Your task to perform on an android device: remove spam from my inbox in the gmail app Image 0: 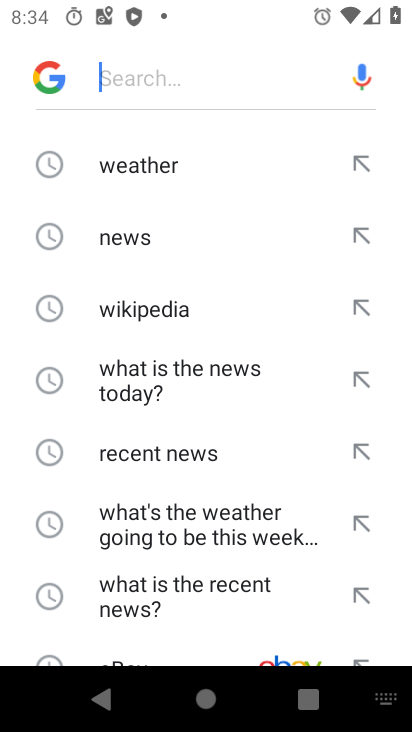
Step 0: press home button
Your task to perform on an android device: remove spam from my inbox in the gmail app Image 1: 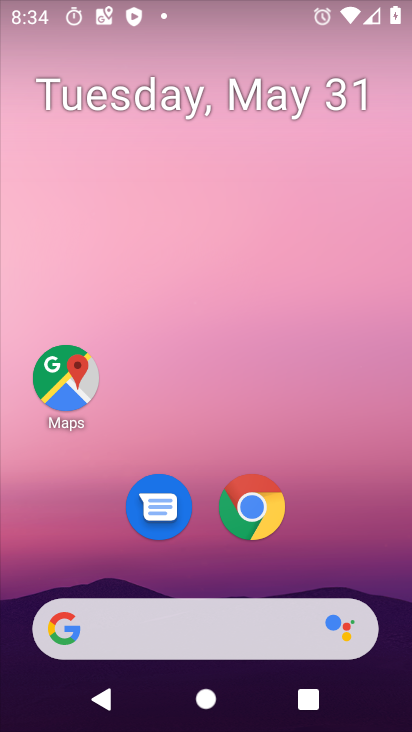
Step 1: drag from (331, 552) to (204, 32)
Your task to perform on an android device: remove spam from my inbox in the gmail app Image 2: 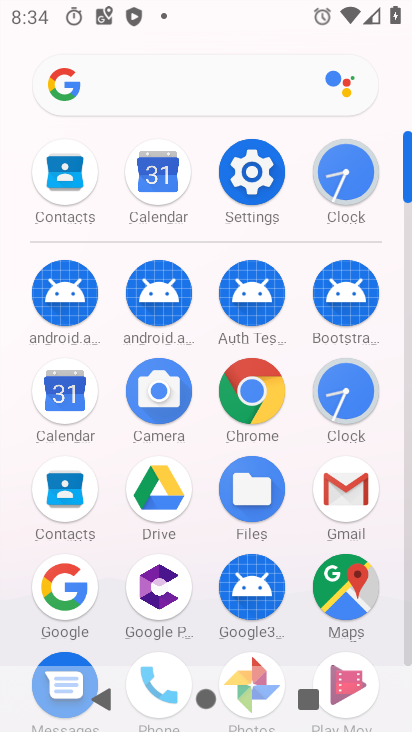
Step 2: click (348, 491)
Your task to perform on an android device: remove spam from my inbox in the gmail app Image 3: 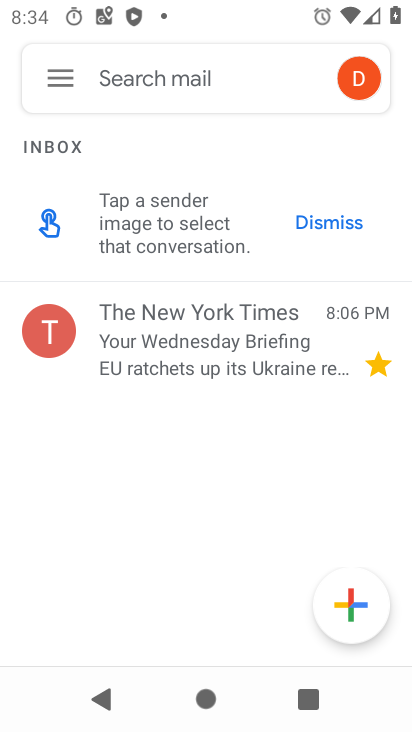
Step 3: click (49, 81)
Your task to perform on an android device: remove spam from my inbox in the gmail app Image 4: 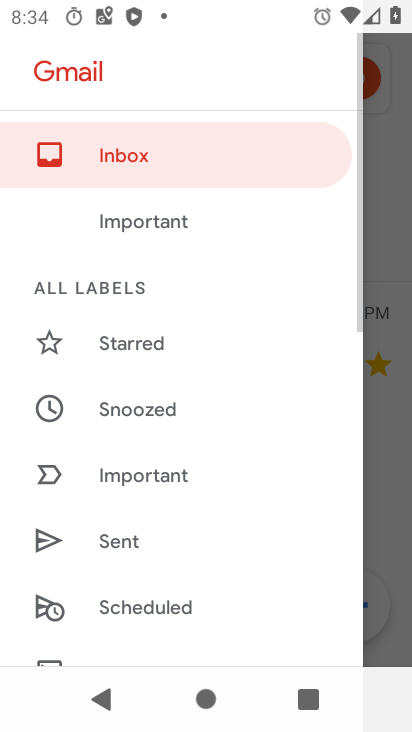
Step 4: drag from (211, 516) to (185, 164)
Your task to perform on an android device: remove spam from my inbox in the gmail app Image 5: 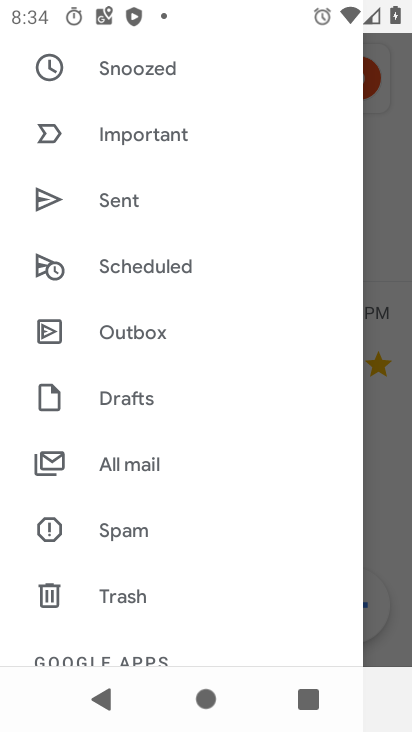
Step 5: click (143, 523)
Your task to perform on an android device: remove spam from my inbox in the gmail app Image 6: 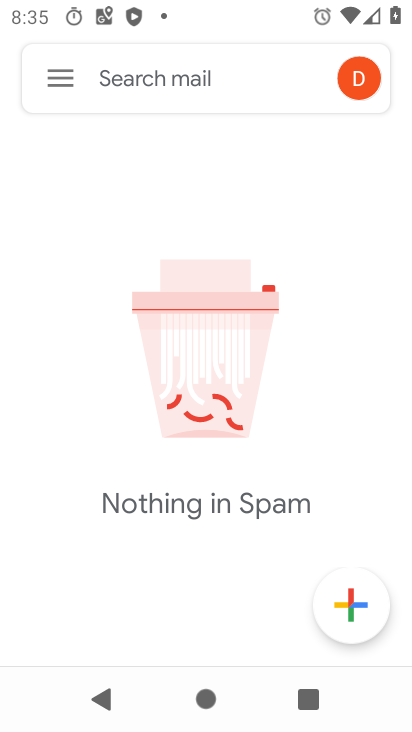
Step 6: task complete